Your task to perform on an android device: See recent photos Image 0: 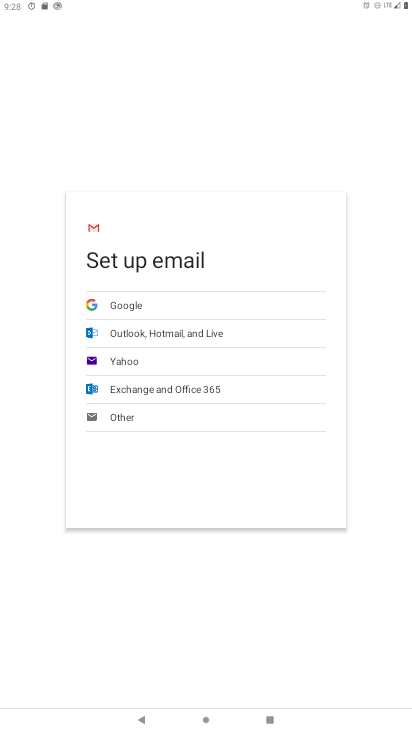
Step 0: press home button
Your task to perform on an android device: See recent photos Image 1: 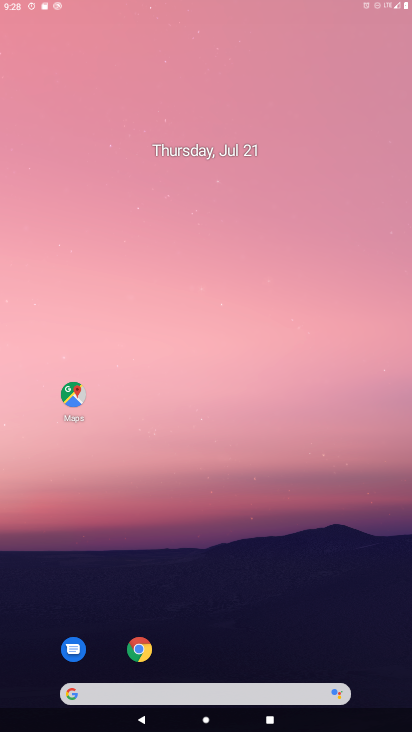
Step 1: drag from (397, 654) to (188, 1)
Your task to perform on an android device: See recent photos Image 2: 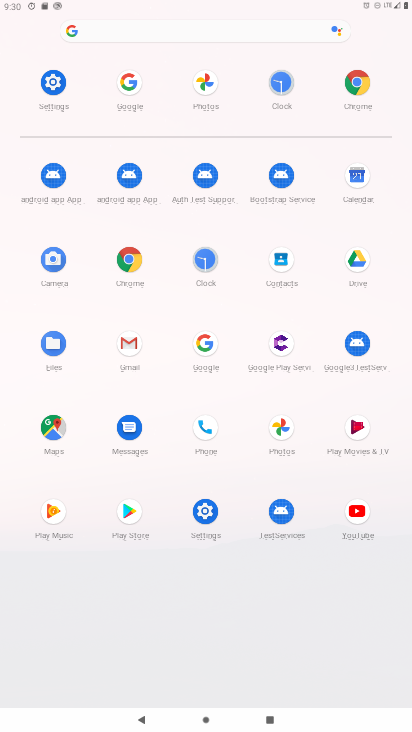
Step 2: click (280, 431)
Your task to perform on an android device: See recent photos Image 3: 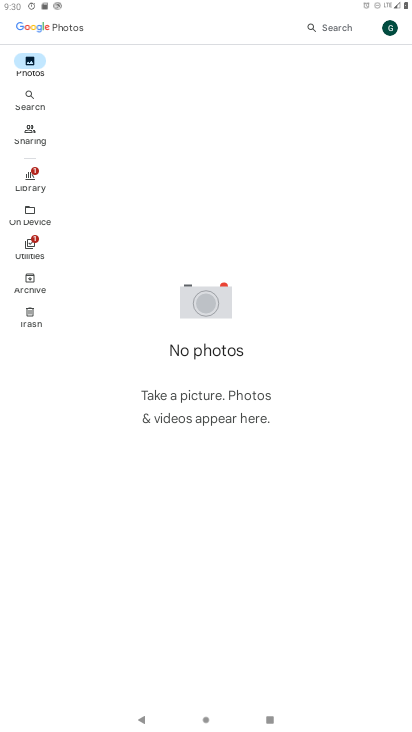
Step 3: task complete